Your task to perform on an android device: turn on sleep mode Image 0: 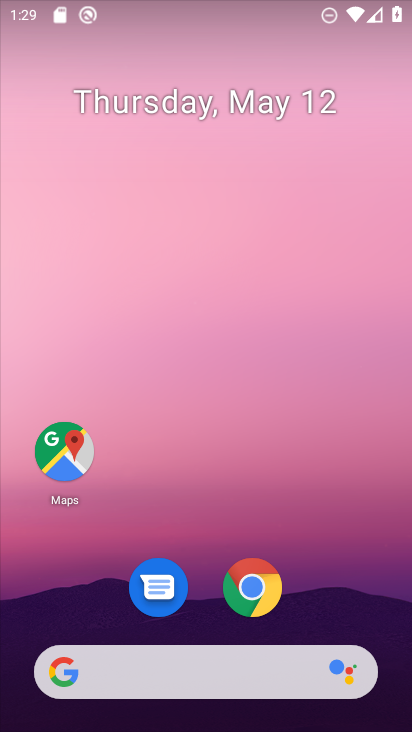
Step 0: drag from (328, 603) to (192, 61)
Your task to perform on an android device: turn on sleep mode Image 1: 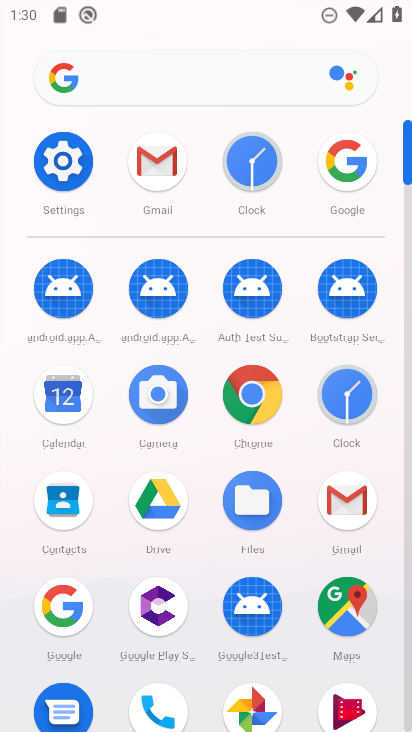
Step 1: click (63, 165)
Your task to perform on an android device: turn on sleep mode Image 2: 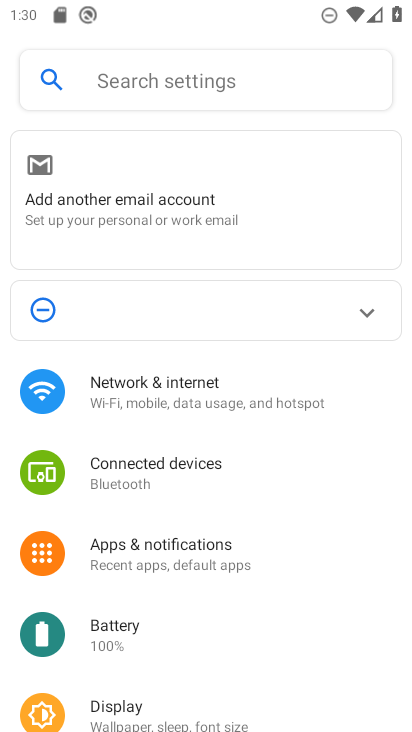
Step 2: drag from (198, 596) to (209, 470)
Your task to perform on an android device: turn on sleep mode Image 3: 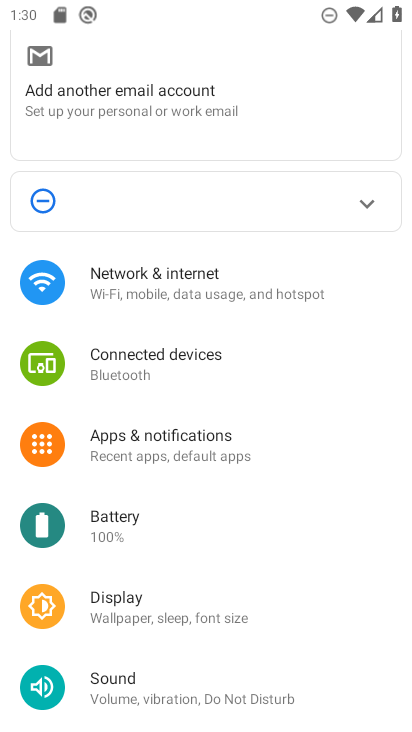
Step 3: click (185, 620)
Your task to perform on an android device: turn on sleep mode Image 4: 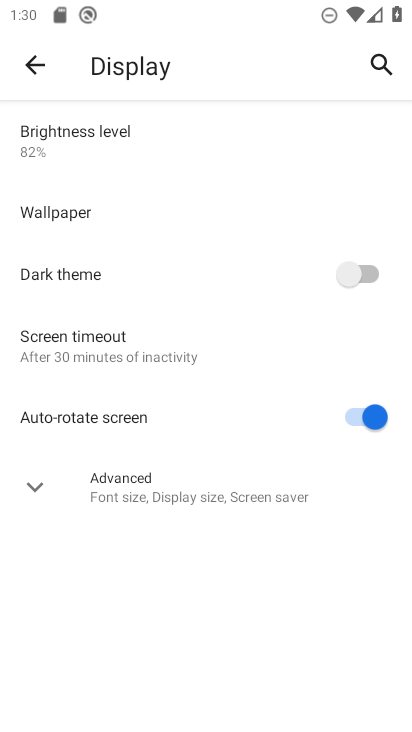
Step 4: click (109, 341)
Your task to perform on an android device: turn on sleep mode Image 5: 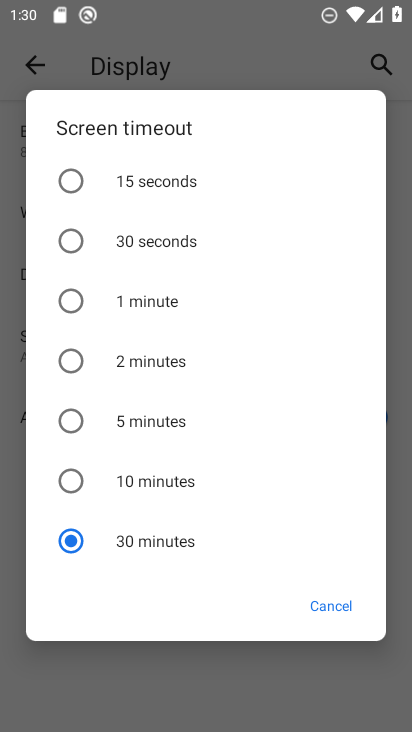
Step 5: click (172, 192)
Your task to perform on an android device: turn on sleep mode Image 6: 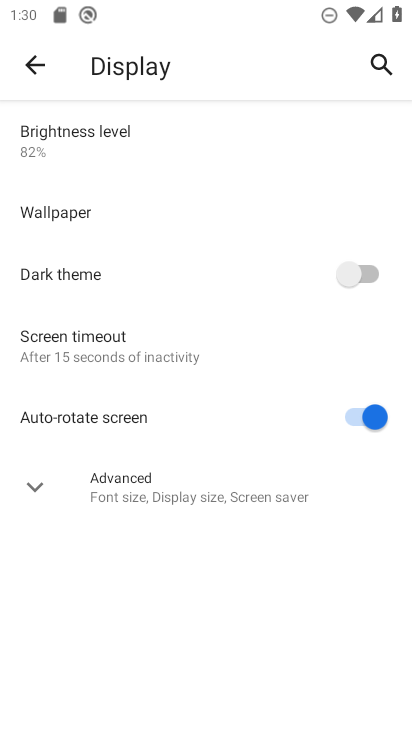
Step 6: task complete